Your task to perform on an android device: clear all cookies in the chrome app Image 0: 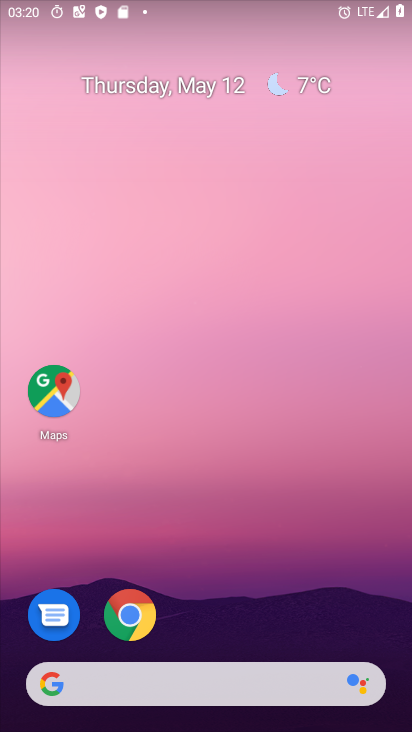
Step 0: click (158, 617)
Your task to perform on an android device: clear all cookies in the chrome app Image 1: 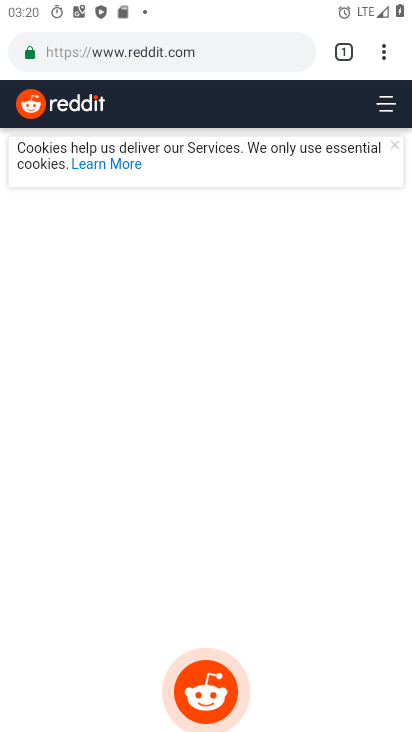
Step 1: drag from (386, 42) to (214, 295)
Your task to perform on an android device: clear all cookies in the chrome app Image 2: 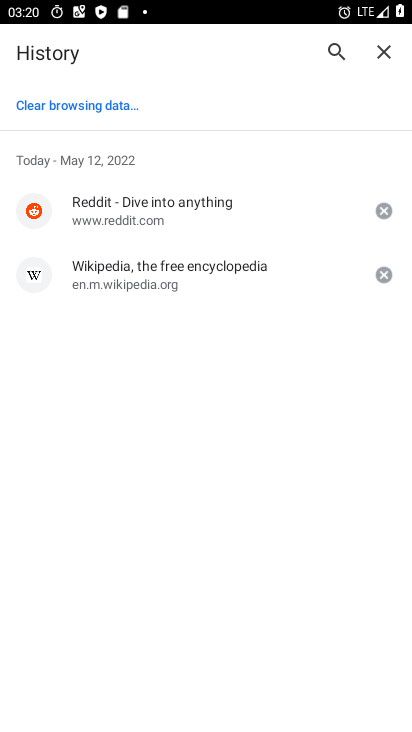
Step 2: click (91, 98)
Your task to perform on an android device: clear all cookies in the chrome app Image 3: 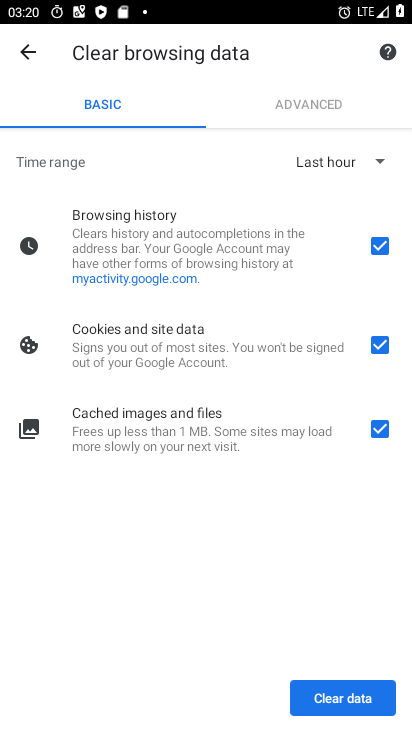
Step 3: click (386, 239)
Your task to perform on an android device: clear all cookies in the chrome app Image 4: 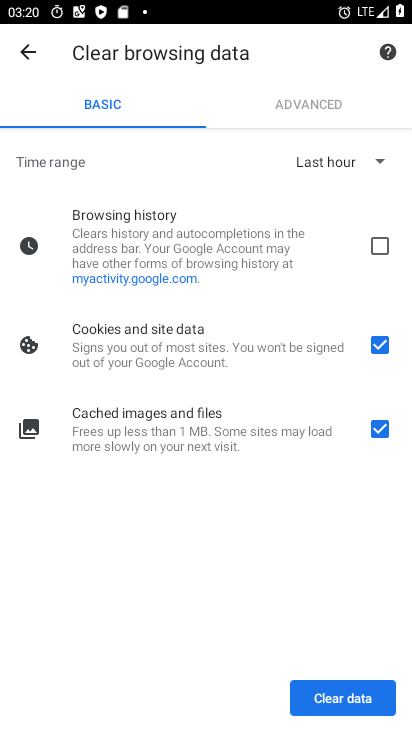
Step 4: click (378, 434)
Your task to perform on an android device: clear all cookies in the chrome app Image 5: 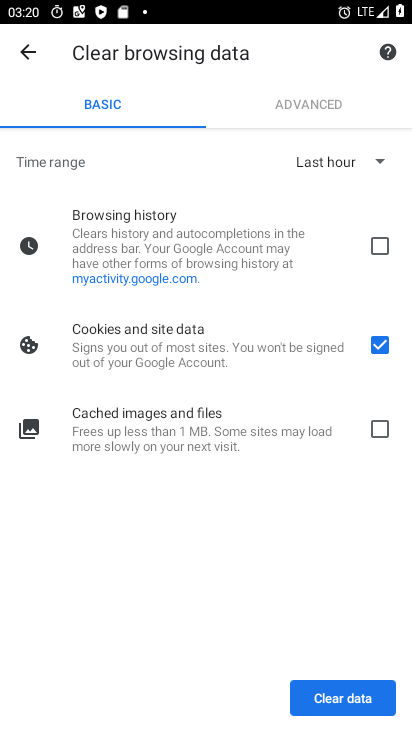
Step 5: click (342, 698)
Your task to perform on an android device: clear all cookies in the chrome app Image 6: 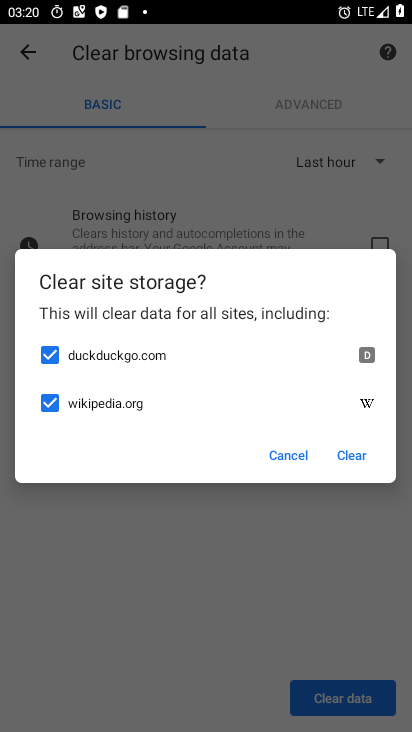
Step 6: click (356, 454)
Your task to perform on an android device: clear all cookies in the chrome app Image 7: 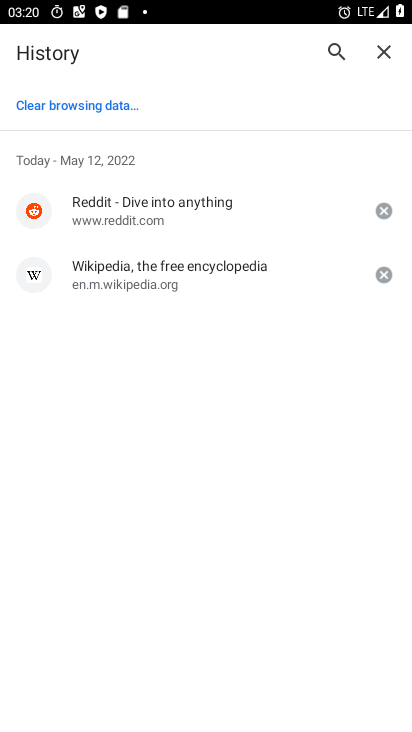
Step 7: task complete